Your task to perform on an android device: move a message to another label in the gmail app Image 0: 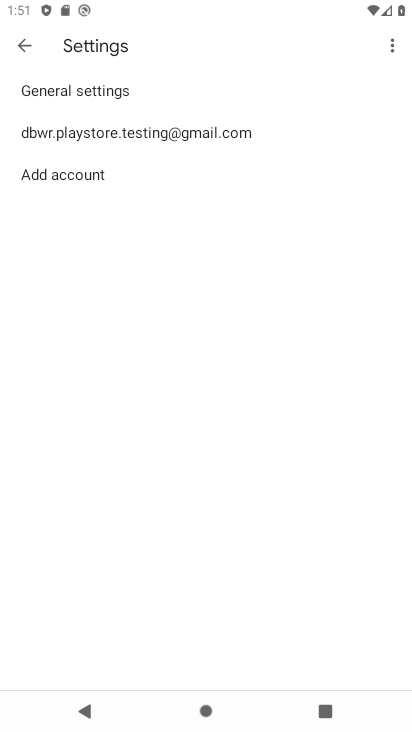
Step 0: press home button
Your task to perform on an android device: move a message to another label in the gmail app Image 1: 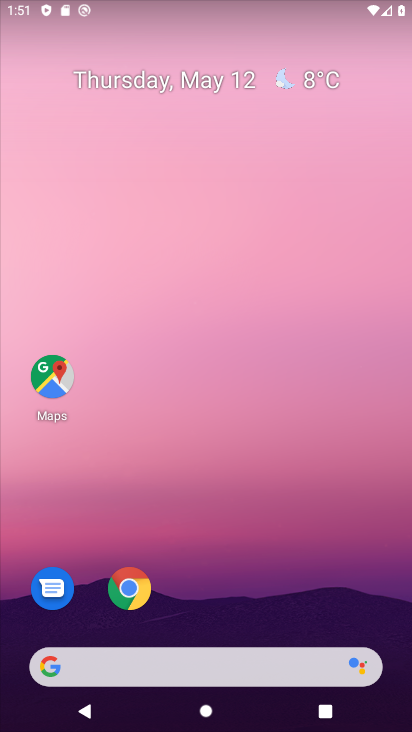
Step 1: drag from (265, 526) to (354, 52)
Your task to perform on an android device: move a message to another label in the gmail app Image 2: 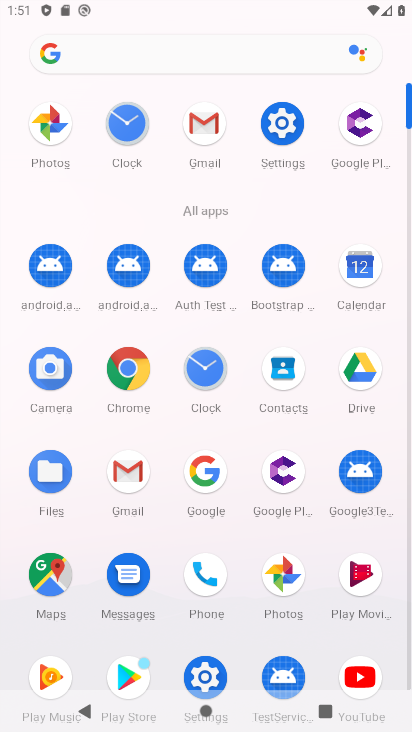
Step 2: click (223, 142)
Your task to perform on an android device: move a message to another label in the gmail app Image 3: 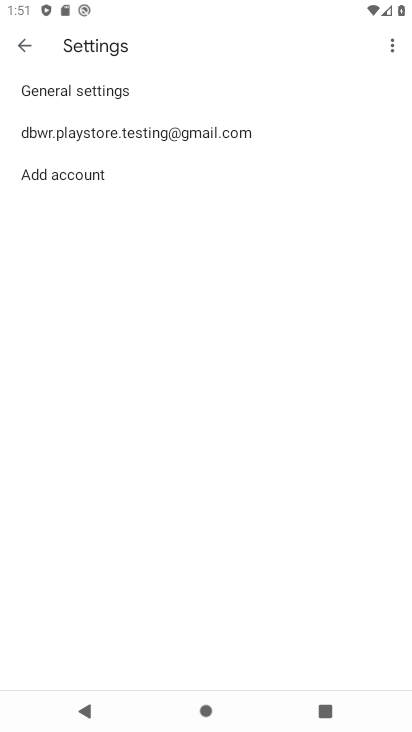
Step 3: click (24, 43)
Your task to perform on an android device: move a message to another label in the gmail app Image 4: 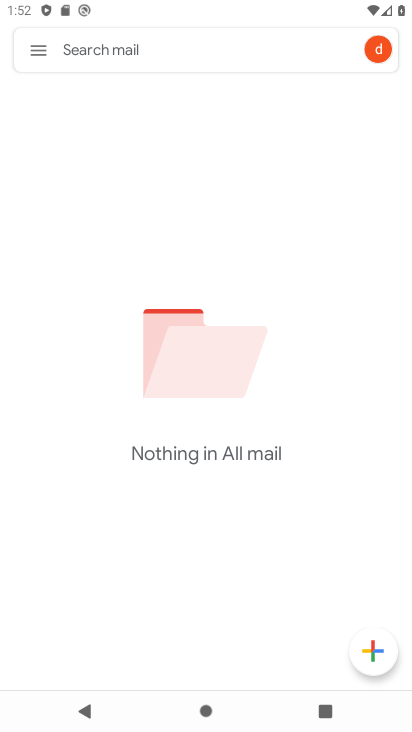
Step 4: click (40, 66)
Your task to perform on an android device: move a message to another label in the gmail app Image 5: 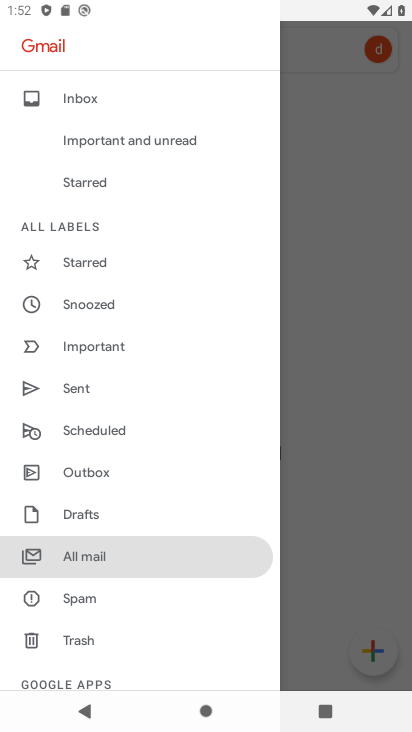
Step 5: click (80, 556)
Your task to perform on an android device: move a message to another label in the gmail app Image 6: 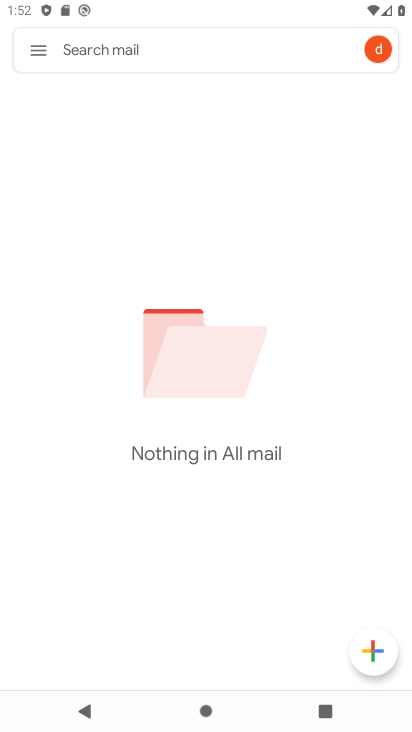
Step 6: task complete